Your task to perform on an android device: Open Youtube and go to "Your channel" Image 0: 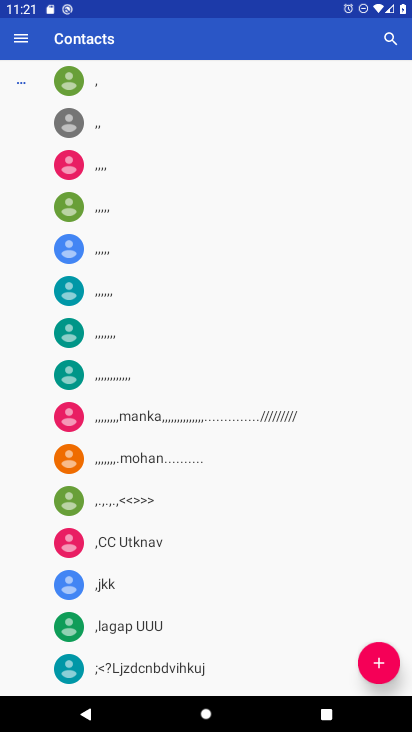
Step 0: press back button
Your task to perform on an android device: Open Youtube and go to "Your channel" Image 1: 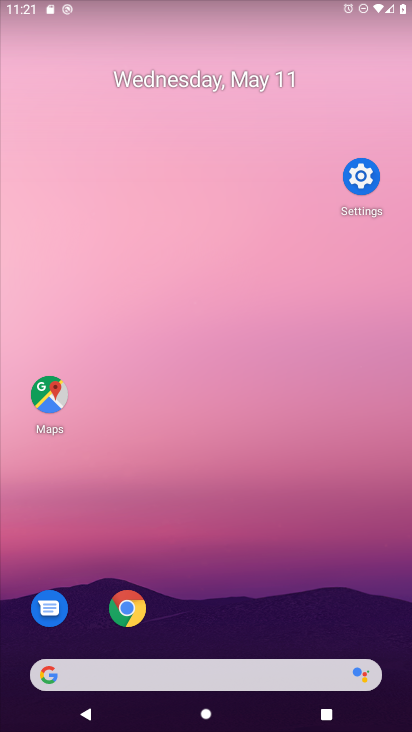
Step 1: drag from (317, 659) to (4, 123)
Your task to perform on an android device: Open Youtube and go to "Your channel" Image 2: 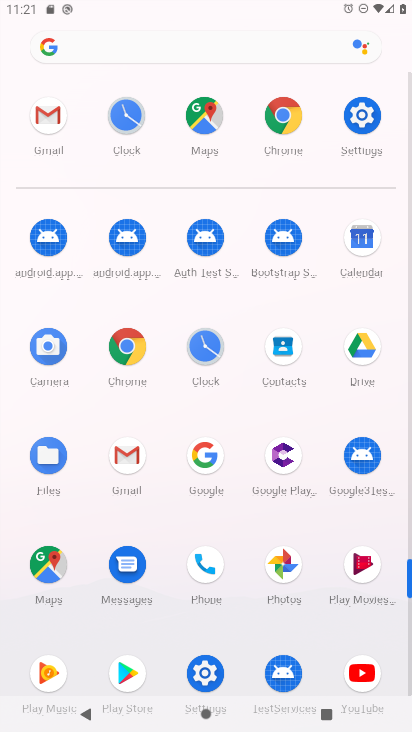
Step 2: click (371, 661)
Your task to perform on an android device: Open Youtube and go to "Your channel" Image 3: 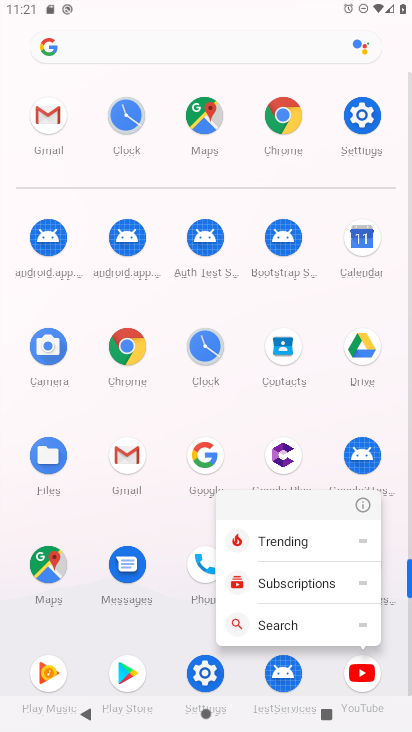
Step 3: click (356, 677)
Your task to perform on an android device: Open Youtube and go to "Your channel" Image 4: 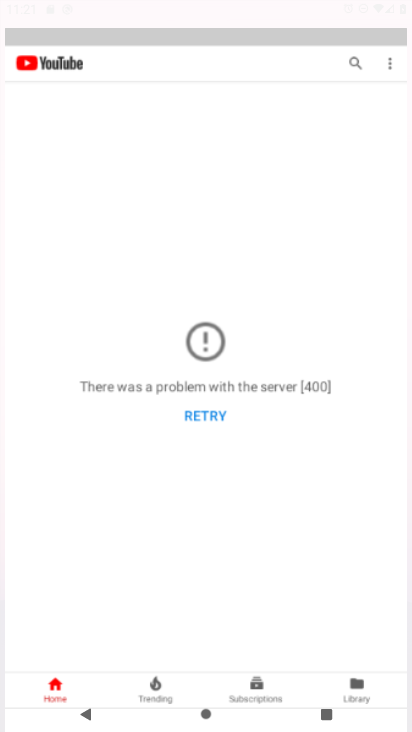
Step 4: click (374, 651)
Your task to perform on an android device: Open Youtube and go to "Your channel" Image 5: 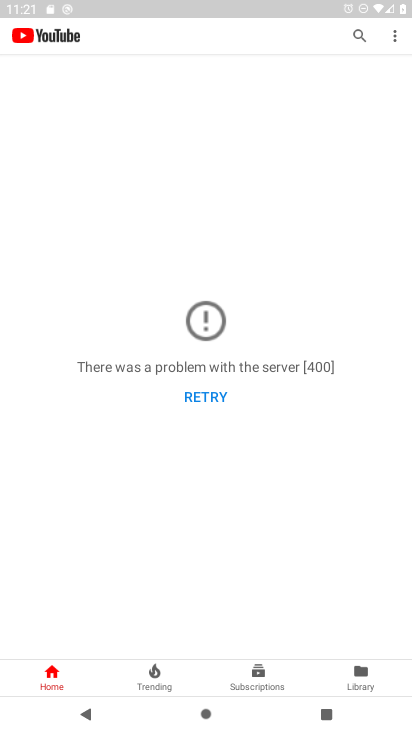
Step 5: click (374, 651)
Your task to perform on an android device: Open Youtube and go to "Your channel" Image 6: 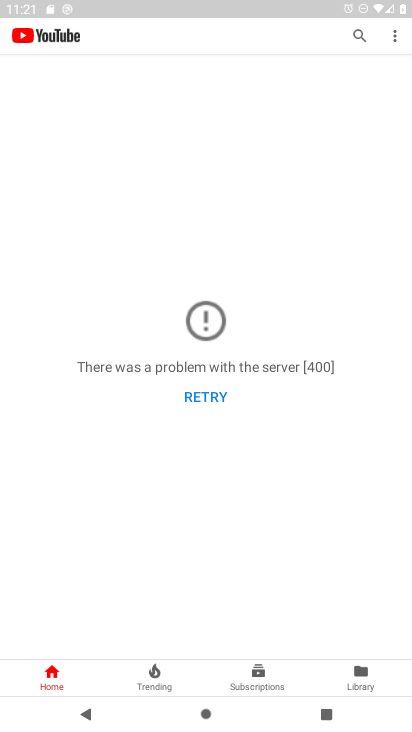
Step 6: task complete